Your task to perform on an android device: turn off smart reply in the gmail app Image 0: 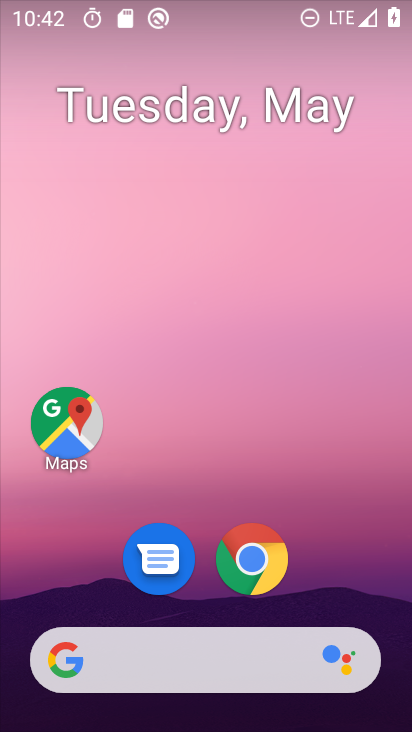
Step 0: drag from (394, 637) to (254, 69)
Your task to perform on an android device: turn off smart reply in the gmail app Image 1: 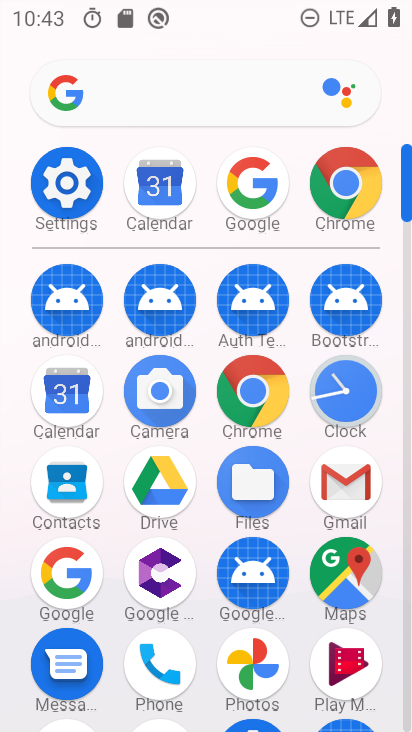
Step 1: click (353, 499)
Your task to perform on an android device: turn off smart reply in the gmail app Image 2: 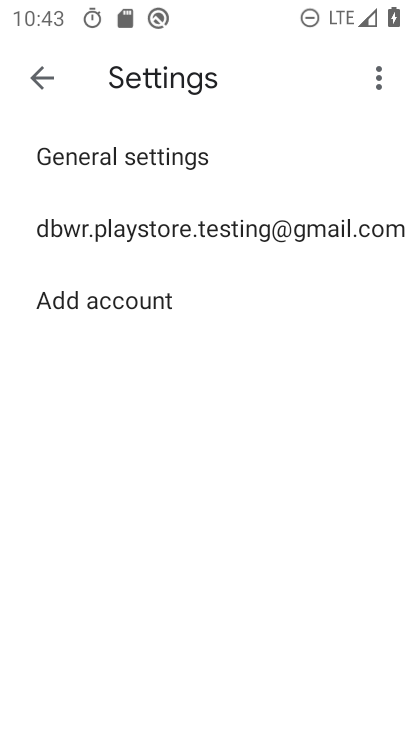
Step 2: click (238, 262)
Your task to perform on an android device: turn off smart reply in the gmail app Image 3: 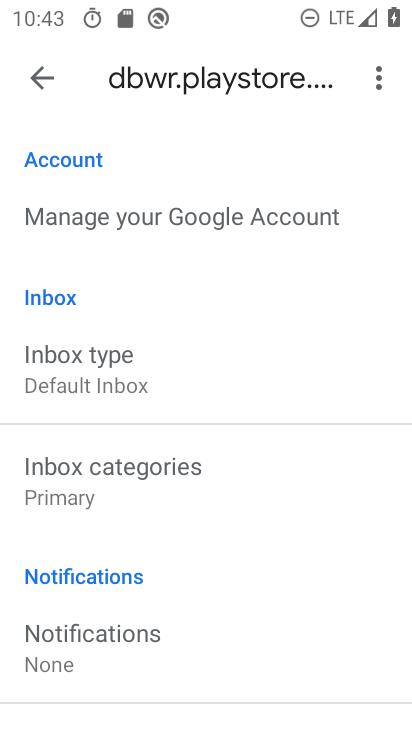
Step 3: task complete